Your task to perform on an android device: Is it going to rain tomorrow? Image 0: 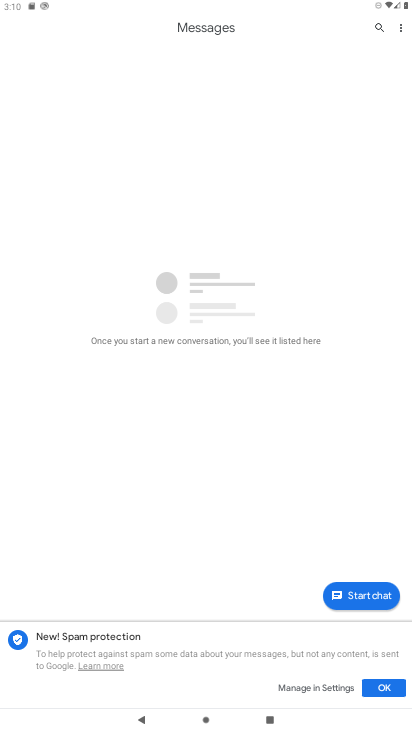
Step 0: press home button
Your task to perform on an android device: Is it going to rain tomorrow? Image 1: 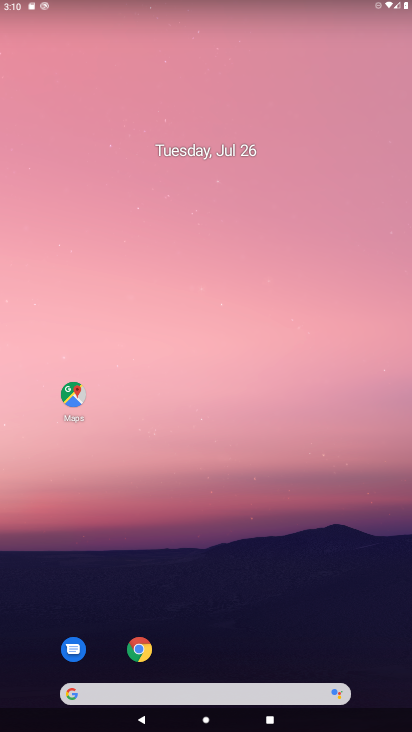
Step 1: drag from (206, 690) to (131, 200)
Your task to perform on an android device: Is it going to rain tomorrow? Image 2: 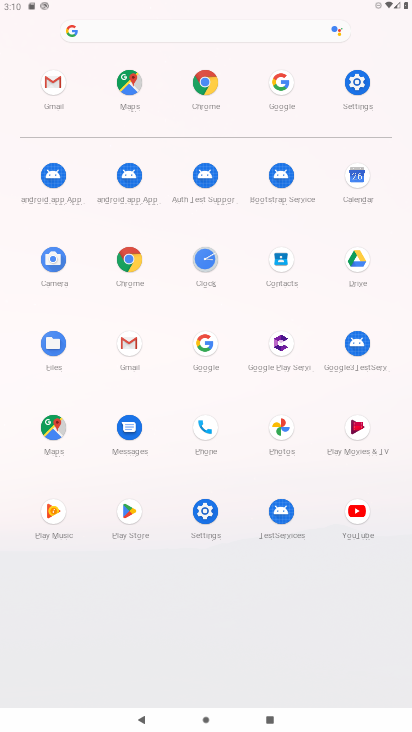
Step 2: click (214, 76)
Your task to perform on an android device: Is it going to rain tomorrow? Image 3: 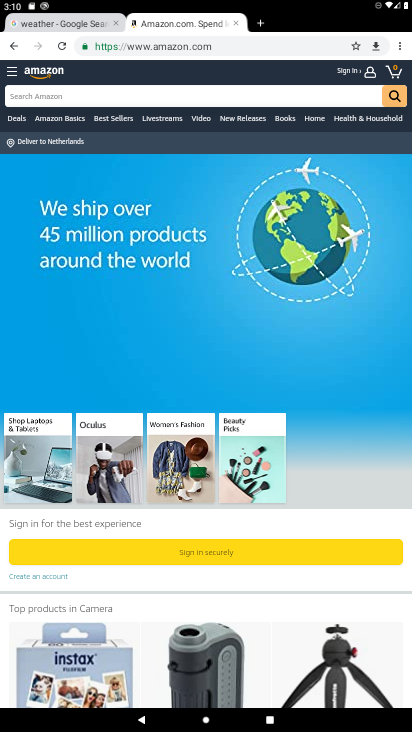
Step 3: click (206, 50)
Your task to perform on an android device: Is it going to rain tomorrow? Image 4: 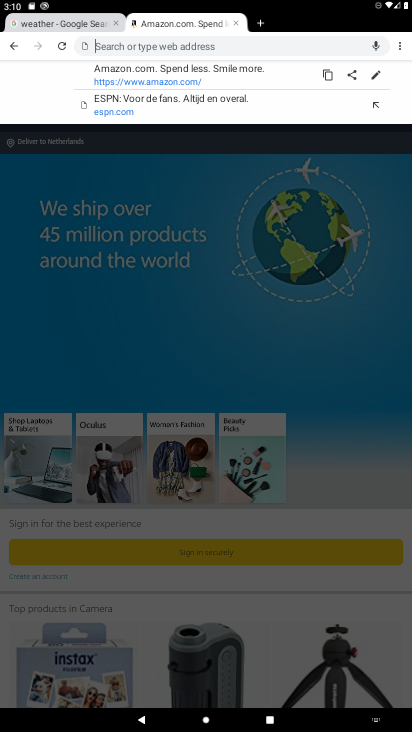
Step 4: type "weather tomorrow"
Your task to perform on an android device: Is it going to rain tomorrow? Image 5: 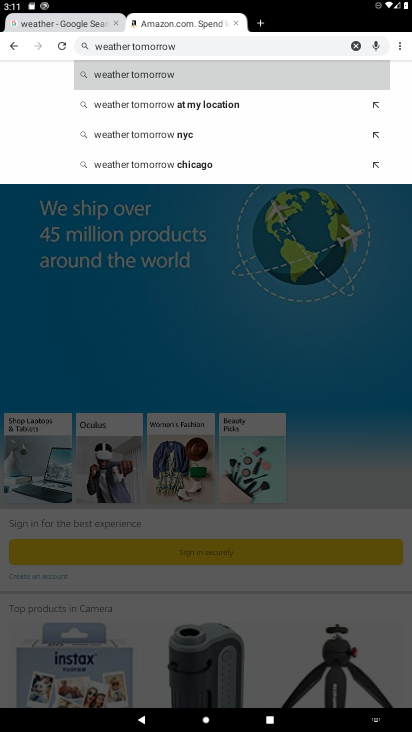
Step 5: click (203, 81)
Your task to perform on an android device: Is it going to rain tomorrow? Image 6: 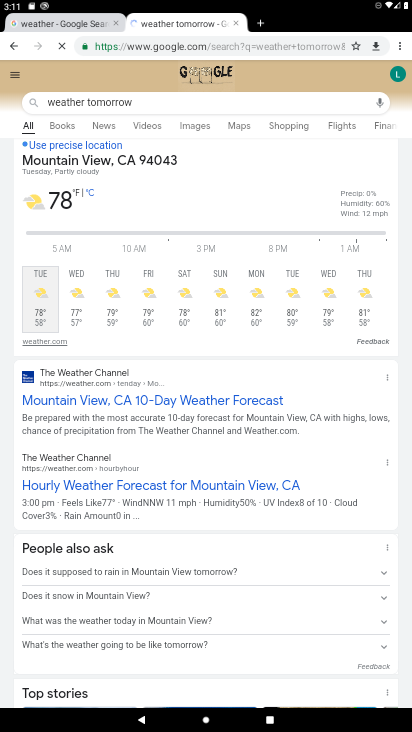
Step 6: task complete